Your task to perform on an android device: Turn on the flashlight Image 0: 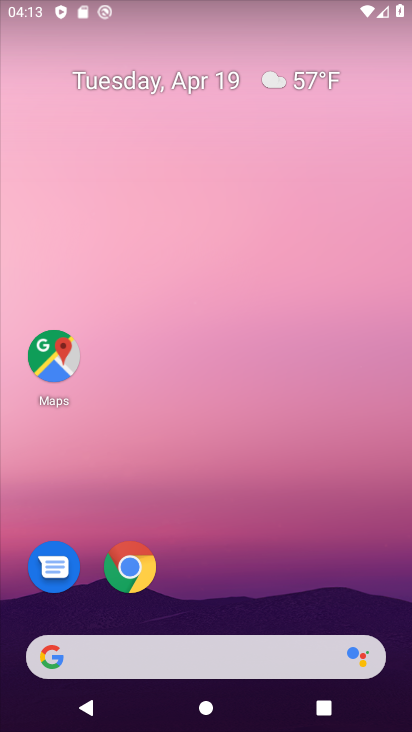
Step 0: drag from (241, 9) to (220, 412)
Your task to perform on an android device: Turn on the flashlight Image 1: 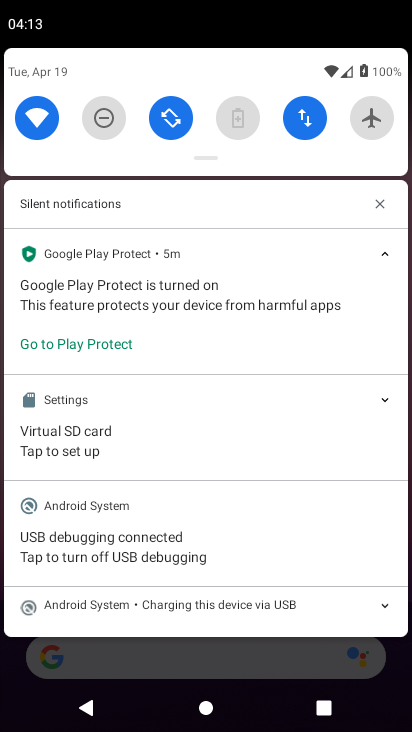
Step 1: drag from (206, 103) to (211, 359)
Your task to perform on an android device: Turn on the flashlight Image 2: 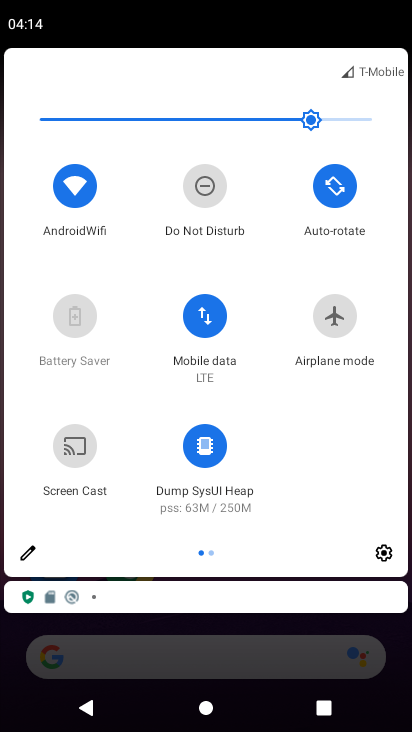
Step 2: click (31, 551)
Your task to perform on an android device: Turn on the flashlight Image 3: 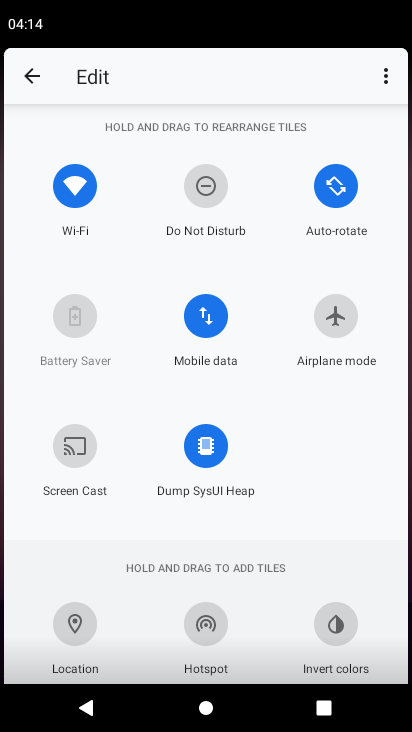
Step 3: task complete